Your task to perform on an android device: Set the phone to "Do not disturb". Image 0: 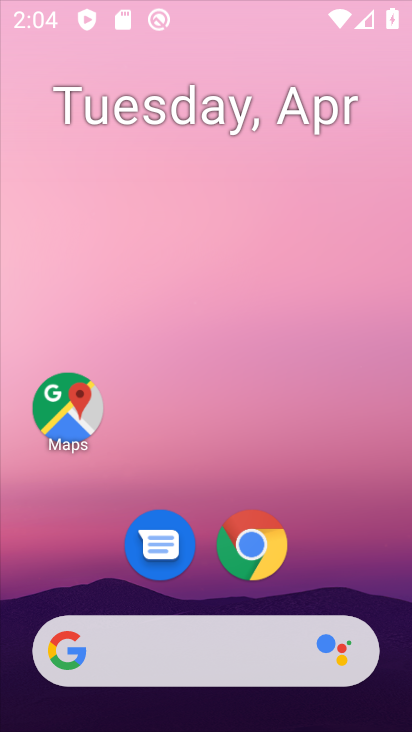
Step 0: drag from (357, 568) to (246, 136)
Your task to perform on an android device: Set the phone to "Do not disturb". Image 1: 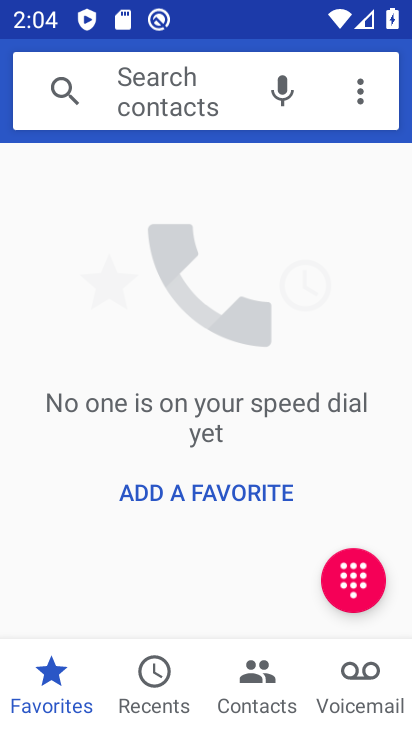
Step 1: press home button
Your task to perform on an android device: Set the phone to "Do not disturb". Image 2: 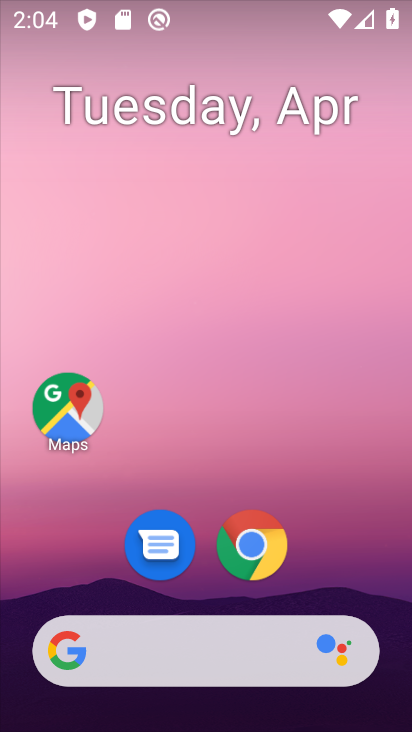
Step 2: drag from (393, 560) to (306, 191)
Your task to perform on an android device: Set the phone to "Do not disturb". Image 3: 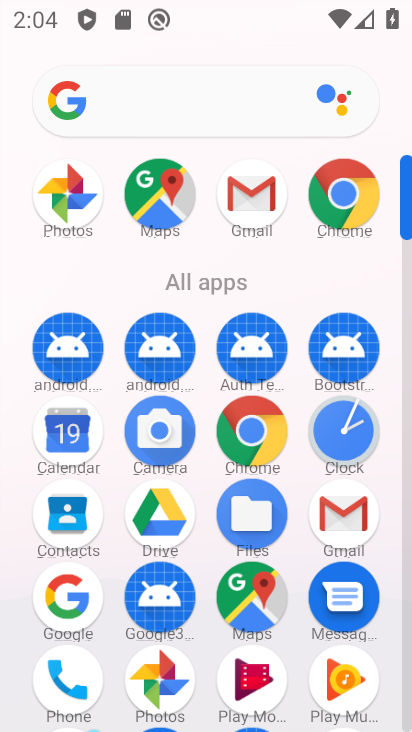
Step 3: click (411, 696)
Your task to perform on an android device: Set the phone to "Do not disturb". Image 4: 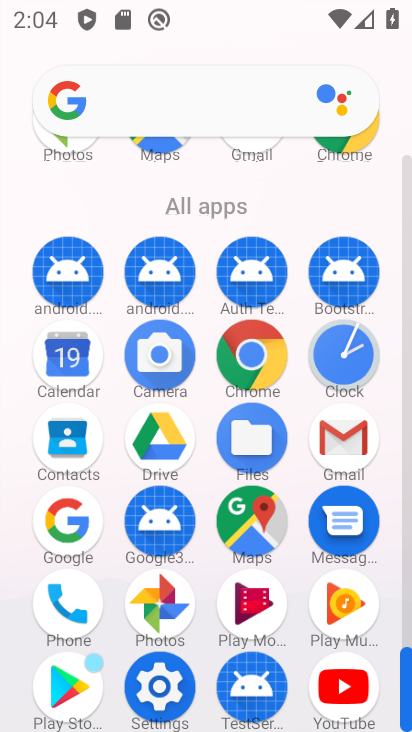
Step 4: click (153, 681)
Your task to perform on an android device: Set the phone to "Do not disturb". Image 5: 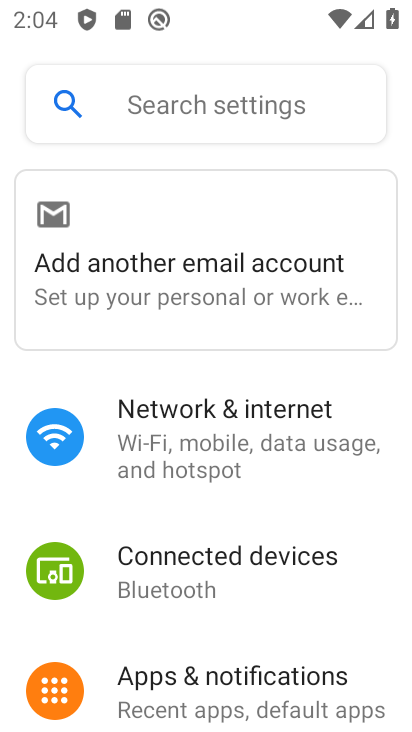
Step 5: drag from (225, 627) to (209, 211)
Your task to perform on an android device: Set the phone to "Do not disturb". Image 6: 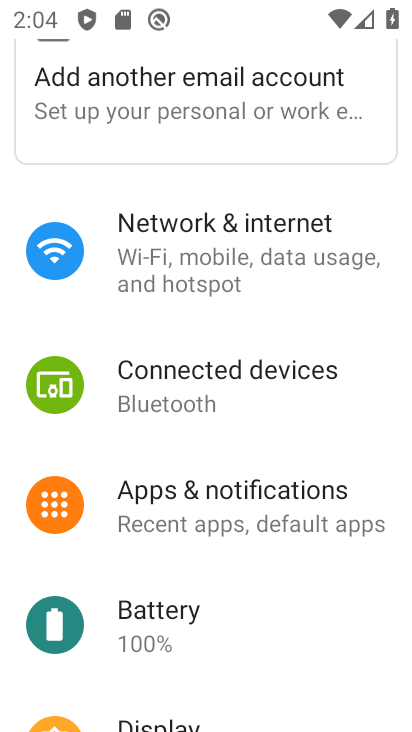
Step 6: drag from (298, 576) to (258, 311)
Your task to perform on an android device: Set the phone to "Do not disturb". Image 7: 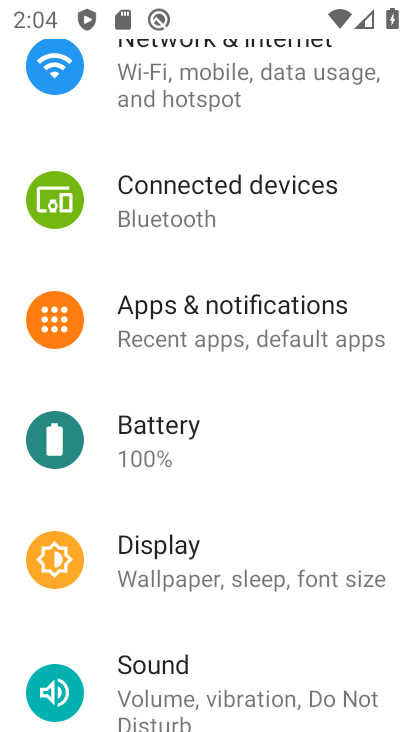
Step 7: click (314, 705)
Your task to perform on an android device: Set the phone to "Do not disturb". Image 8: 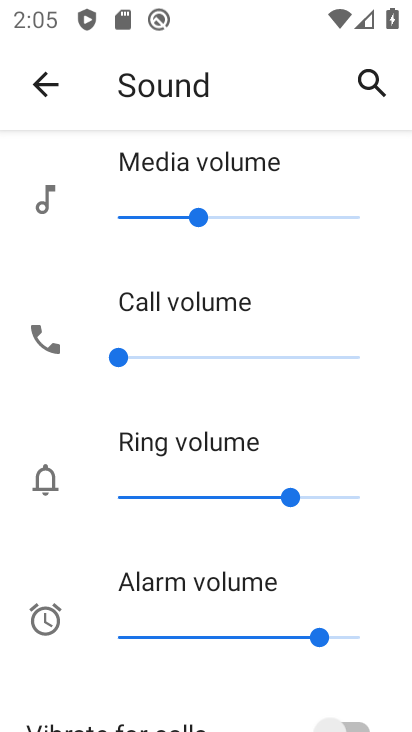
Step 8: drag from (300, 689) to (282, 174)
Your task to perform on an android device: Set the phone to "Do not disturb". Image 9: 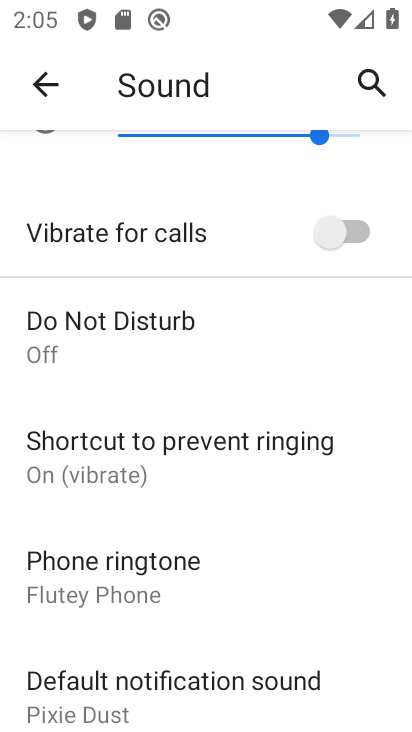
Step 9: click (302, 358)
Your task to perform on an android device: Set the phone to "Do not disturb". Image 10: 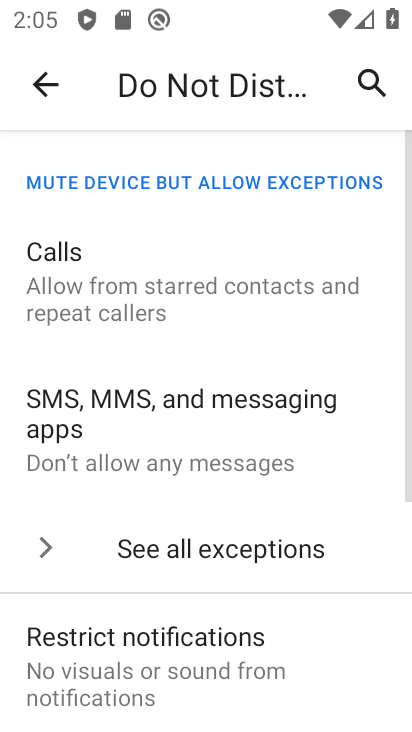
Step 10: drag from (312, 610) to (219, 208)
Your task to perform on an android device: Set the phone to "Do not disturb". Image 11: 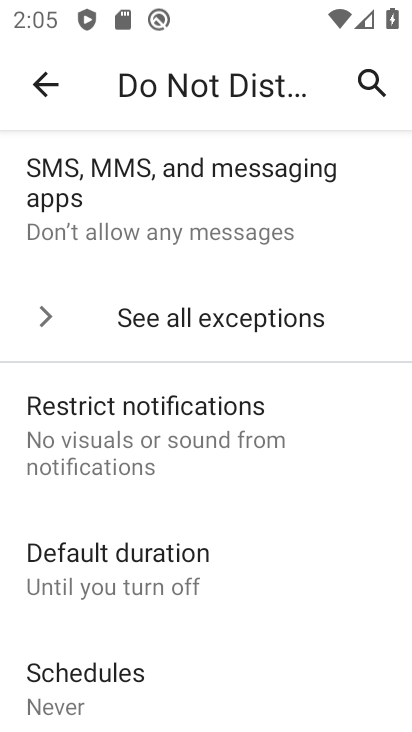
Step 11: drag from (249, 630) to (210, 172)
Your task to perform on an android device: Set the phone to "Do not disturb". Image 12: 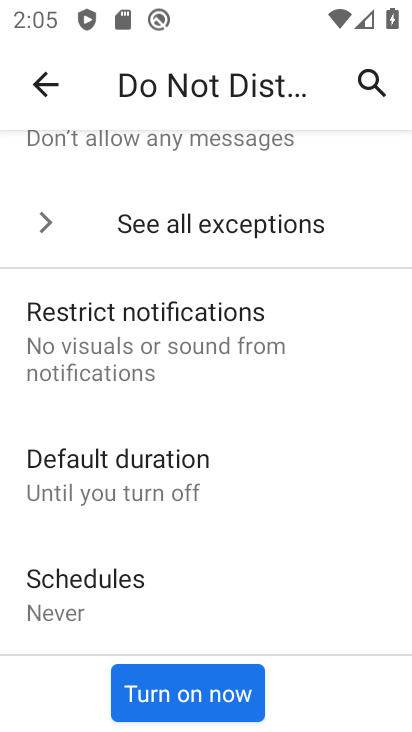
Step 12: click (198, 693)
Your task to perform on an android device: Set the phone to "Do not disturb". Image 13: 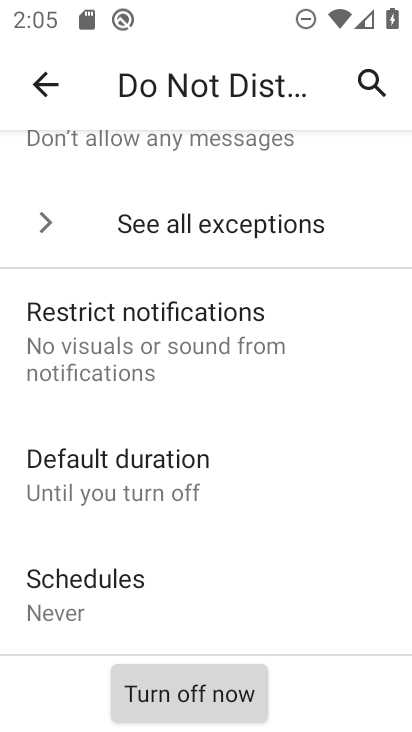
Step 13: task complete